Your task to perform on an android device: Open calendar and show me the first week of next month Image 0: 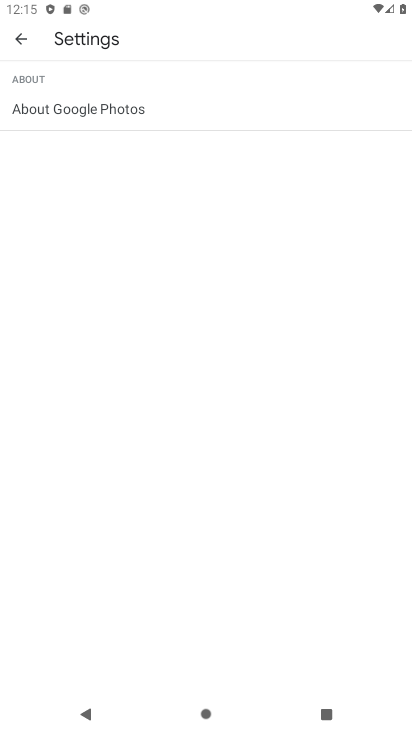
Step 0: press home button
Your task to perform on an android device: Open calendar and show me the first week of next month Image 1: 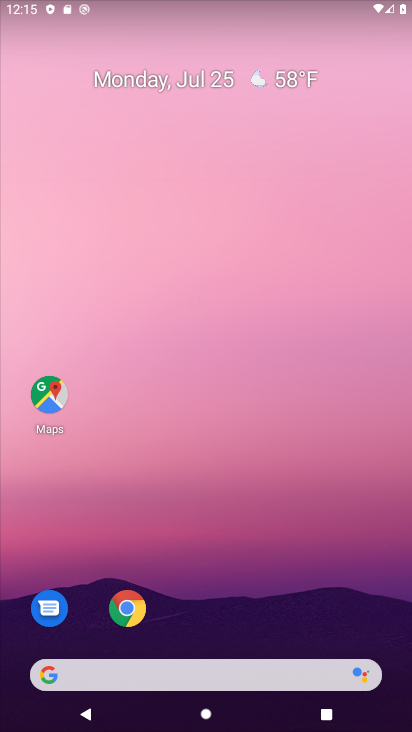
Step 1: drag from (313, 639) to (269, 84)
Your task to perform on an android device: Open calendar and show me the first week of next month Image 2: 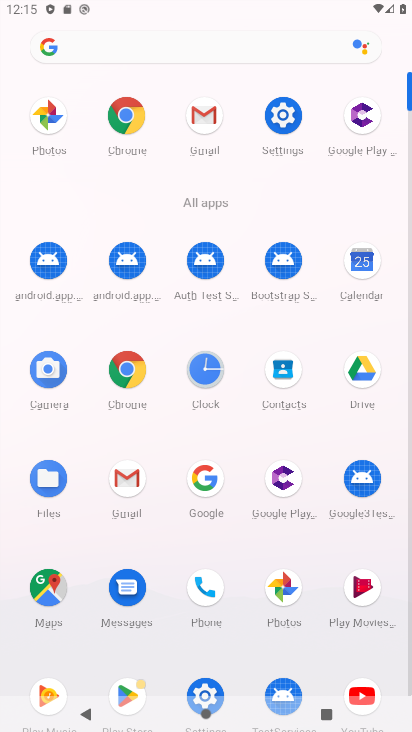
Step 2: click (355, 281)
Your task to perform on an android device: Open calendar and show me the first week of next month Image 3: 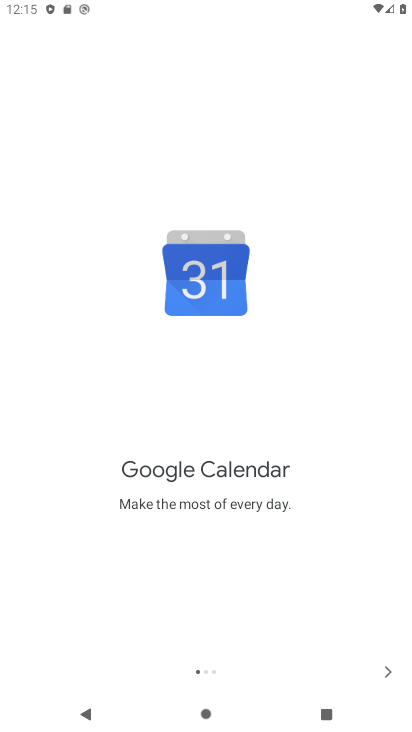
Step 3: click (385, 668)
Your task to perform on an android device: Open calendar and show me the first week of next month Image 4: 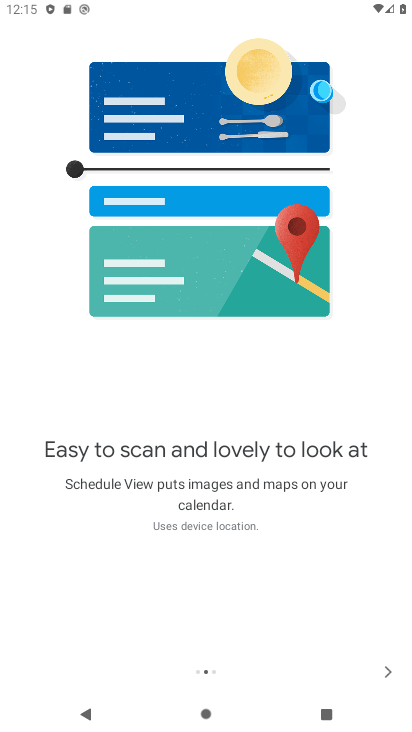
Step 4: click (385, 668)
Your task to perform on an android device: Open calendar and show me the first week of next month Image 5: 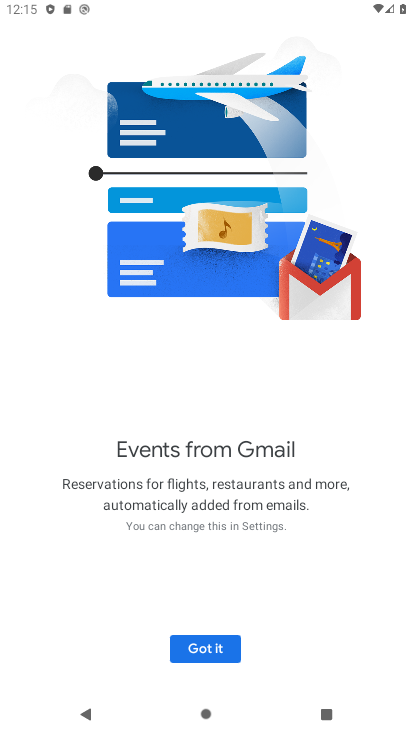
Step 5: click (191, 649)
Your task to perform on an android device: Open calendar and show me the first week of next month Image 6: 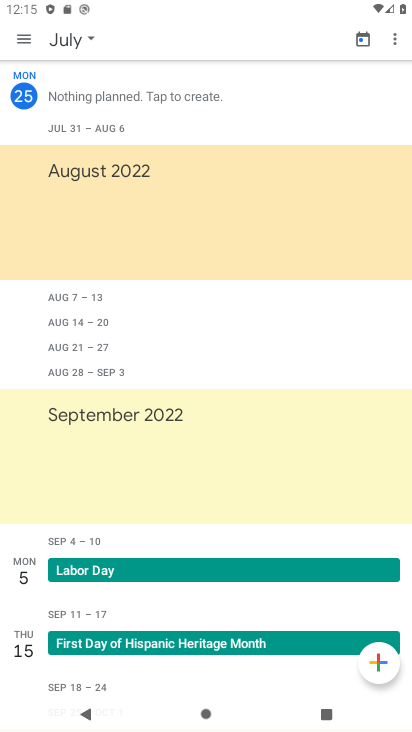
Step 6: click (64, 45)
Your task to perform on an android device: Open calendar and show me the first week of next month Image 7: 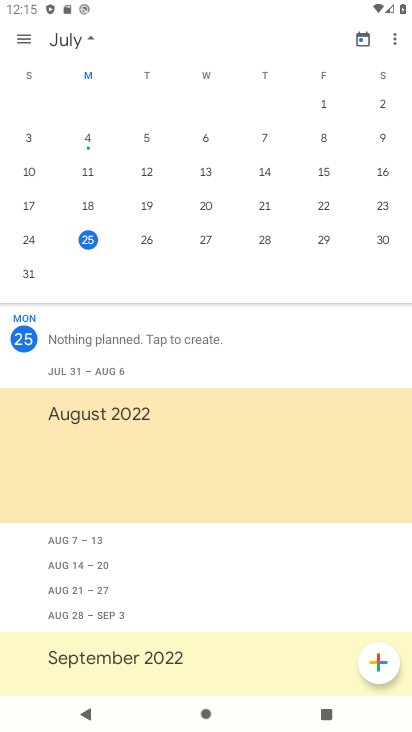
Step 7: drag from (357, 174) to (12, 173)
Your task to perform on an android device: Open calendar and show me the first week of next month Image 8: 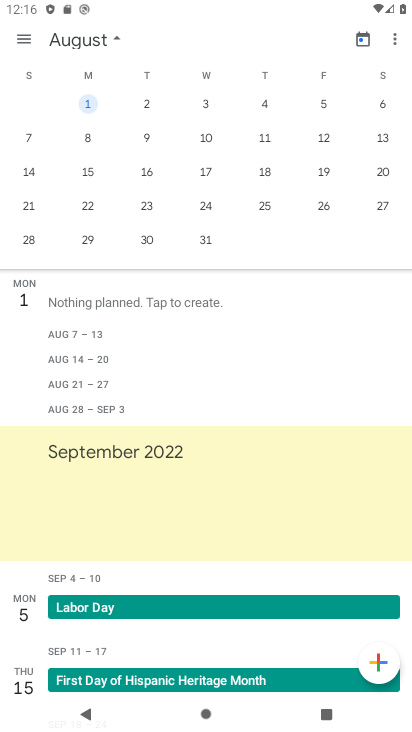
Step 8: click (22, 34)
Your task to perform on an android device: Open calendar and show me the first week of next month Image 9: 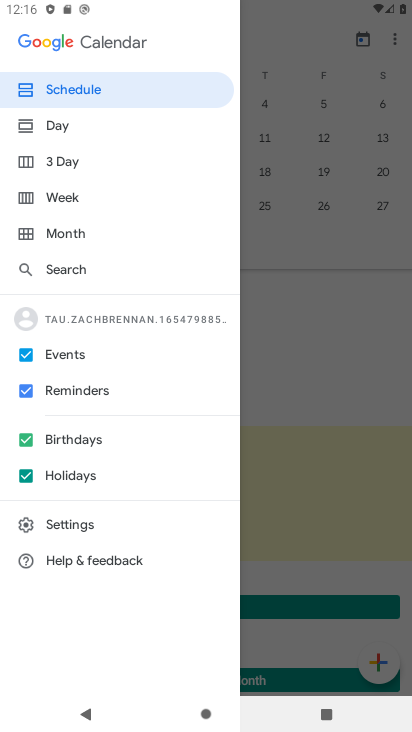
Step 9: click (57, 207)
Your task to perform on an android device: Open calendar and show me the first week of next month Image 10: 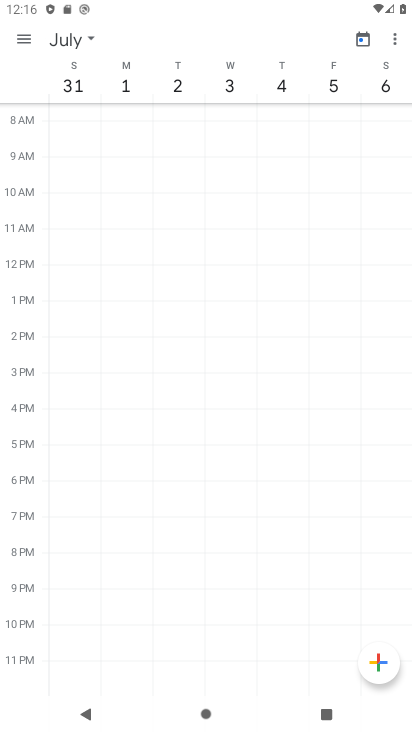
Step 10: task complete